Your task to perform on an android device: turn on the 12-hour format for clock Image 0: 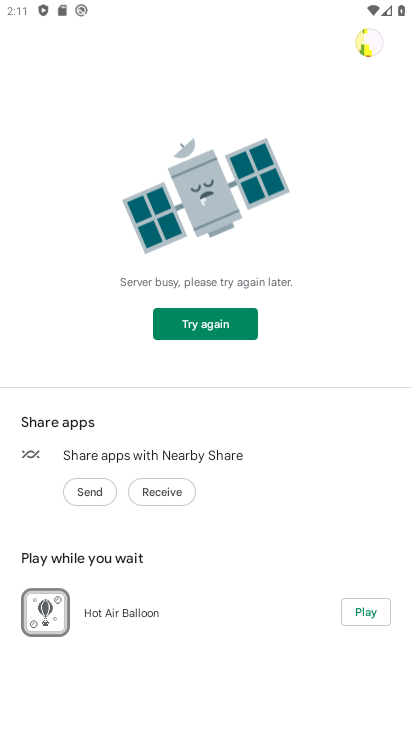
Step 0: press home button
Your task to perform on an android device: turn on the 12-hour format for clock Image 1: 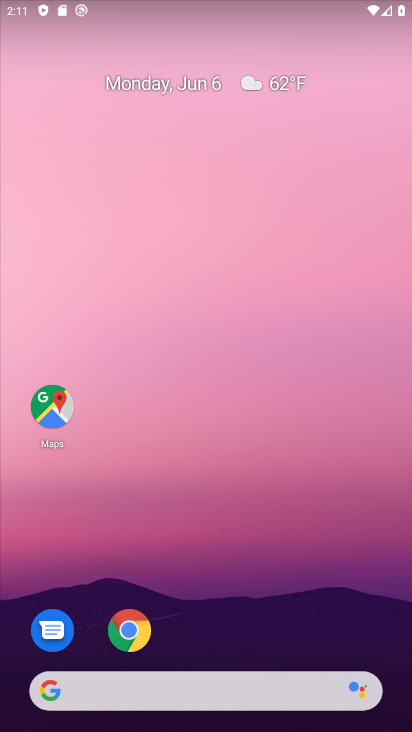
Step 1: drag from (209, 607) to (207, 168)
Your task to perform on an android device: turn on the 12-hour format for clock Image 2: 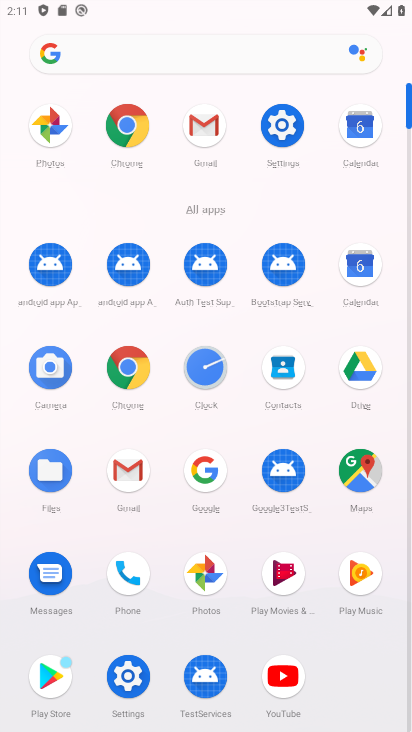
Step 2: click (217, 371)
Your task to perform on an android device: turn on the 12-hour format for clock Image 3: 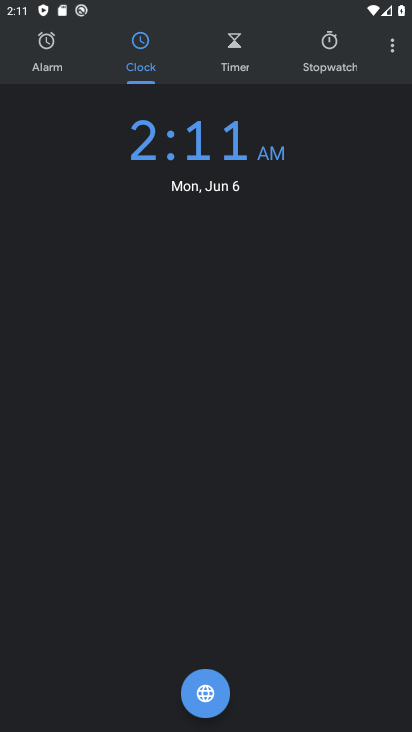
Step 3: click (391, 43)
Your task to perform on an android device: turn on the 12-hour format for clock Image 4: 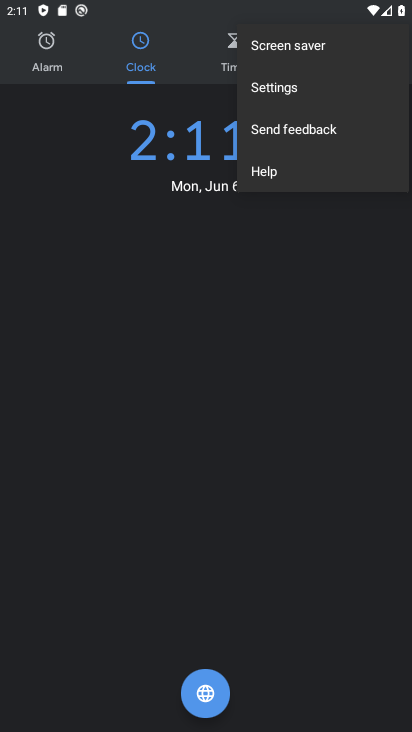
Step 4: click (279, 102)
Your task to perform on an android device: turn on the 12-hour format for clock Image 5: 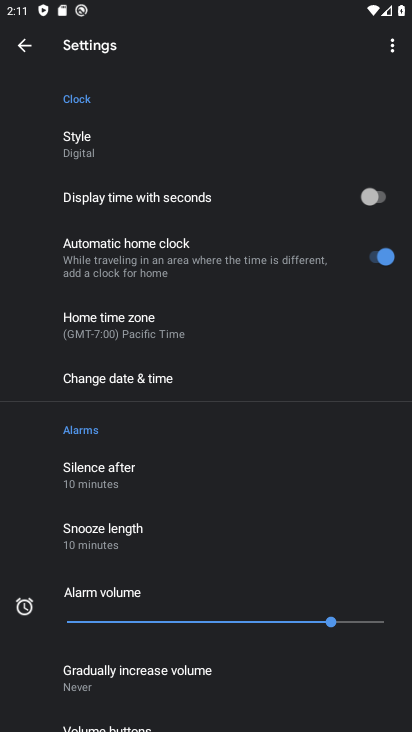
Step 5: click (128, 377)
Your task to perform on an android device: turn on the 12-hour format for clock Image 6: 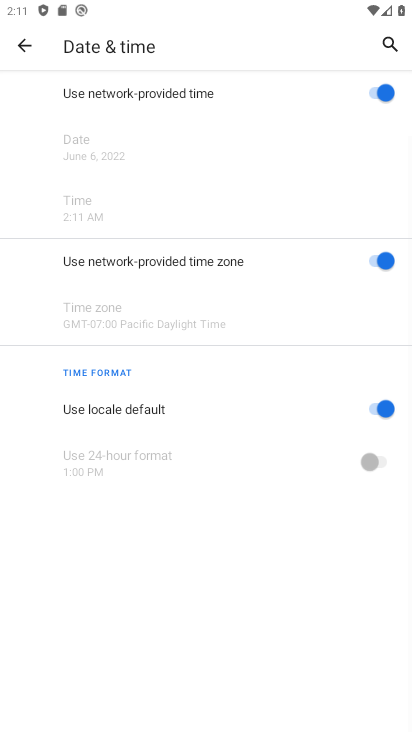
Step 6: task complete